Your task to perform on an android device: What's the weather? Image 0: 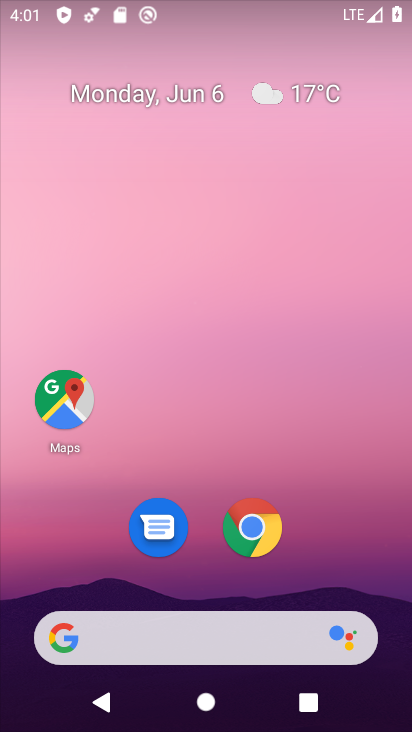
Step 0: click (261, 628)
Your task to perform on an android device: What's the weather? Image 1: 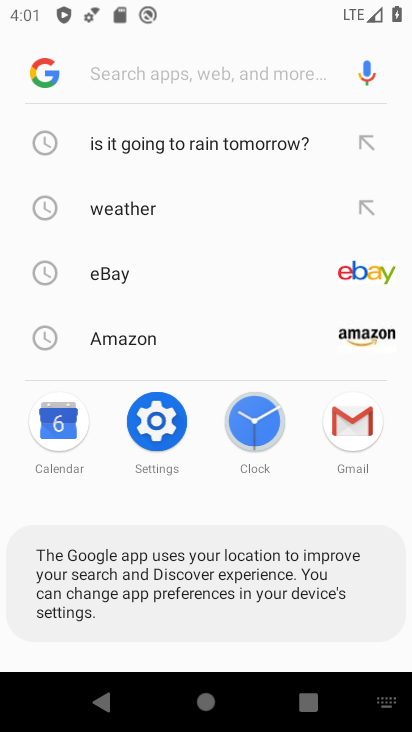
Step 1: click (123, 208)
Your task to perform on an android device: What's the weather? Image 2: 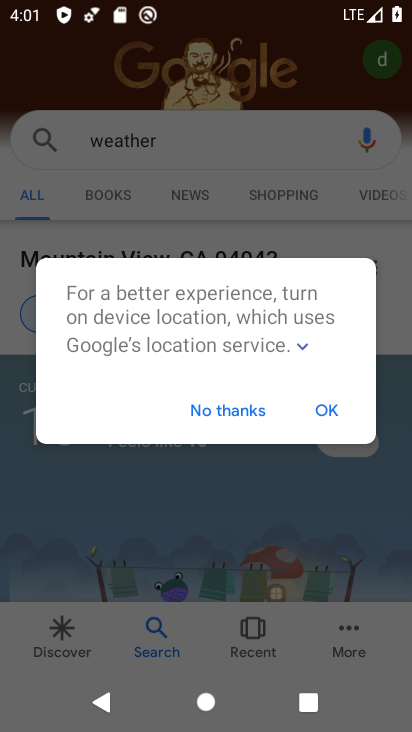
Step 2: drag from (387, 326) to (384, 88)
Your task to perform on an android device: What's the weather? Image 3: 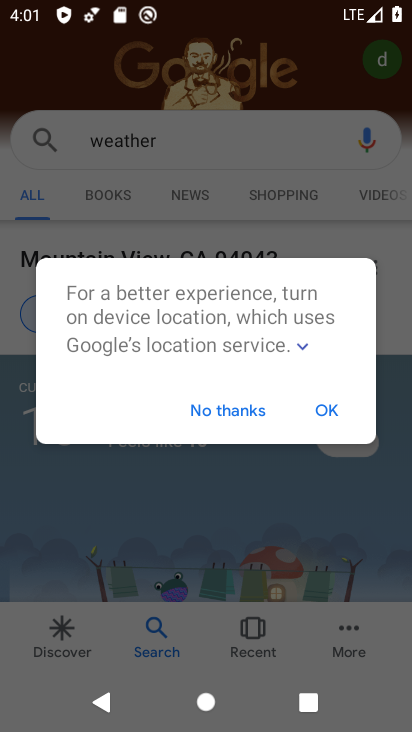
Step 3: click (317, 413)
Your task to perform on an android device: What's the weather? Image 4: 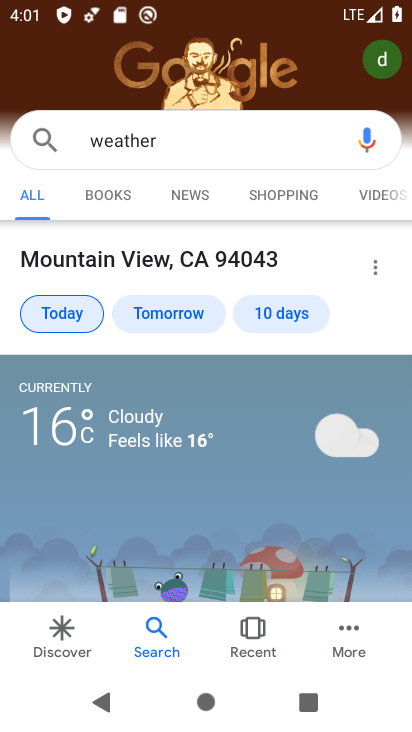
Step 4: task complete